Your task to perform on an android device: Open calendar and show me the second week of next month Image 0: 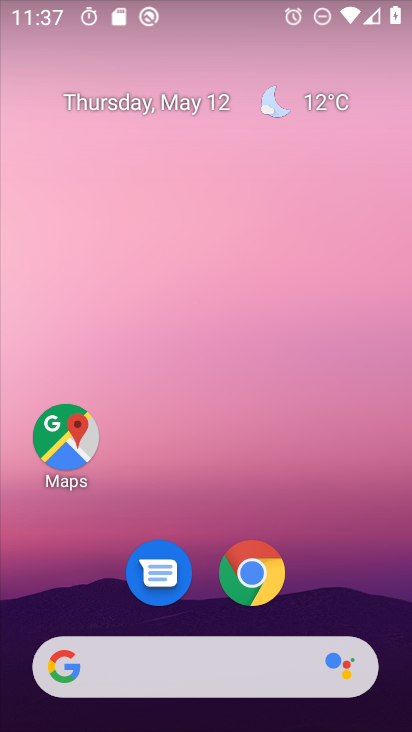
Step 0: click (376, 204)
Your task to perform on an android device: Open calendar and show me the second week of next month Image 1: 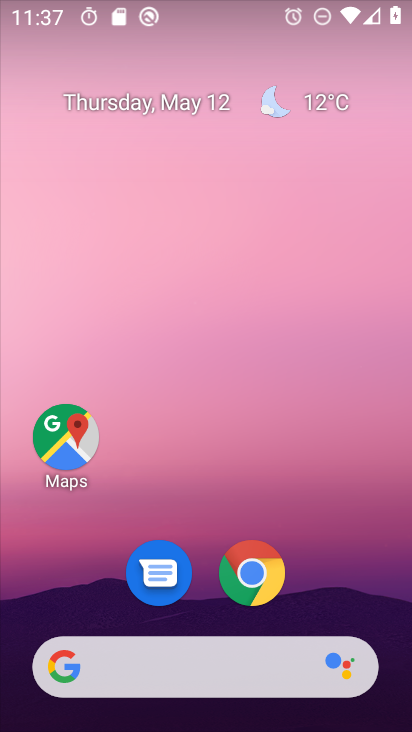
Step 1: drag from (408, 469) to (380, 104)
Your task to perform on an android device: Open calendar and show me the second week of next month Image 2: 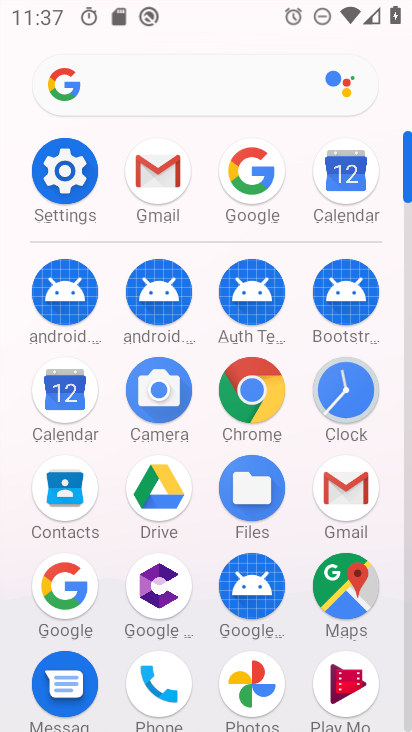
Step 2: click (67, 413)
Your task to perform on an android device: Open calendar and show me the second week of next month Image 3: 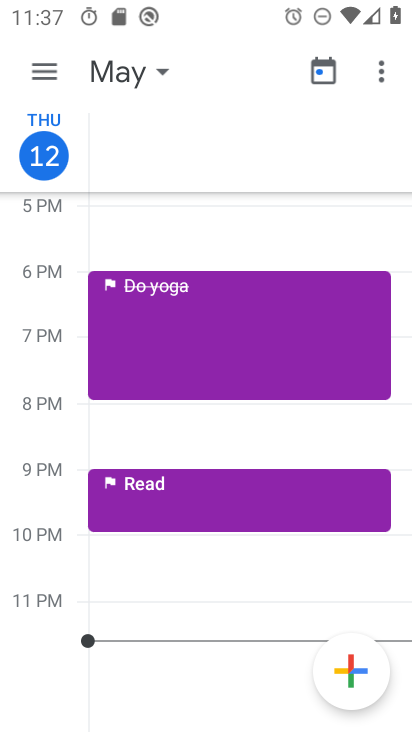
Step 3: click (159, 71)
Your task to perform on an android device: Open calendar and show me the second week of next month Image 4: 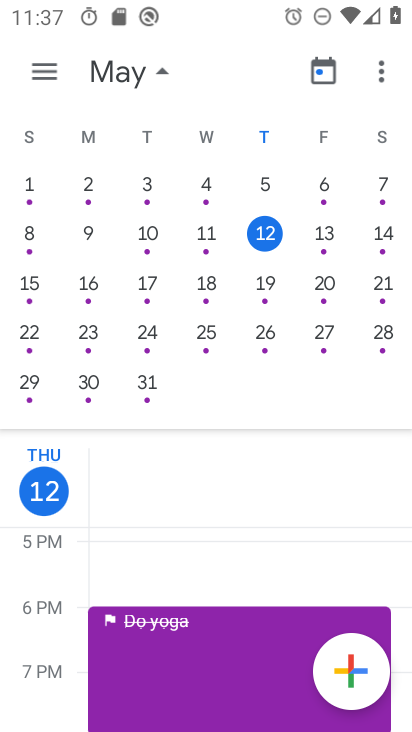
Step 4: drag from (402, 273) to (249, 247)
Your task to perform on an android device: Open calendar and show me the second week of next month Image 5: 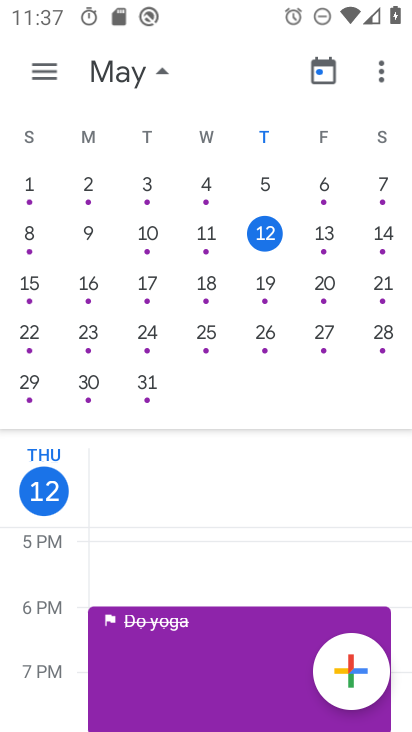
Step 5: drag from (398, 296) to (56, 269)
Your task to perform on an android device: Open calendar and show me the second week of next month Image 6: 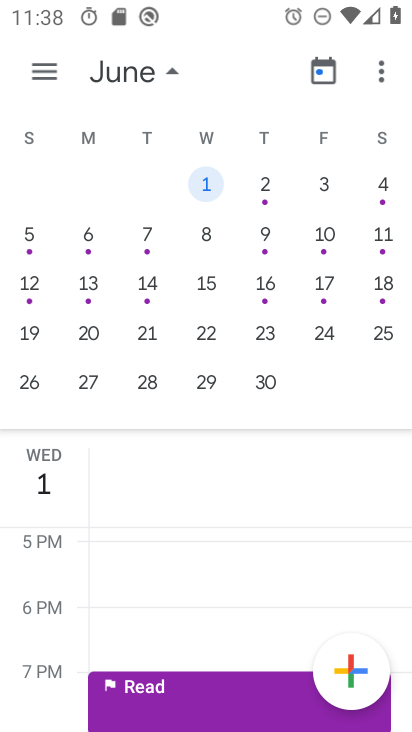
Step 6: click (269, 230)
Your task to perform on an android device: Open calendar and show me the second week of next month Image 7: 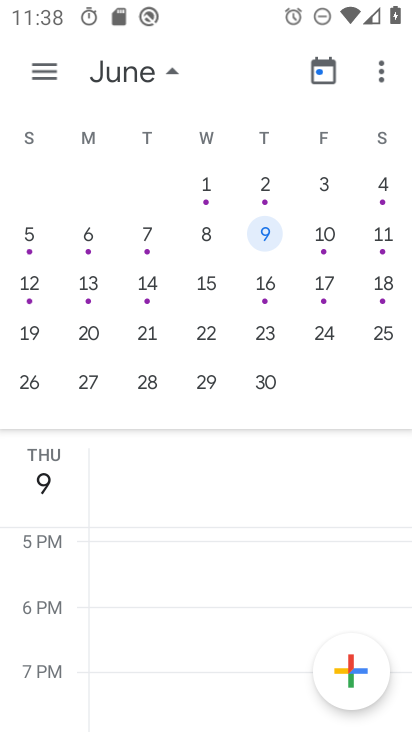
Step 7: task complete